Your task to perform on an android device: Open calendar and show me the first week of next month Image 0: 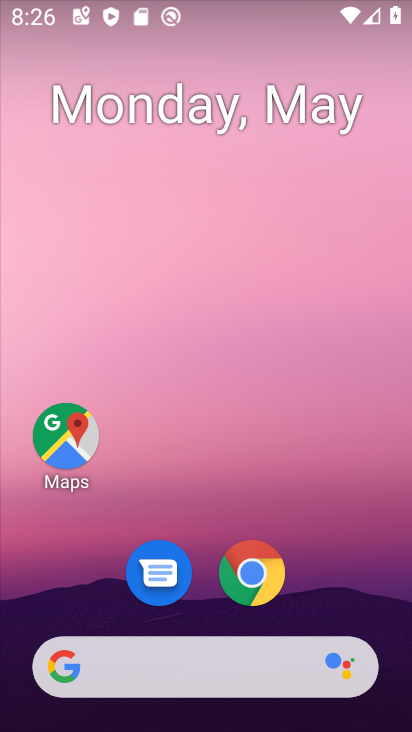
Step 0: drag from (353, 608) to (364, 160)
Your task to perform on an android device: Open calendar and show me the first week of next month Image 1: 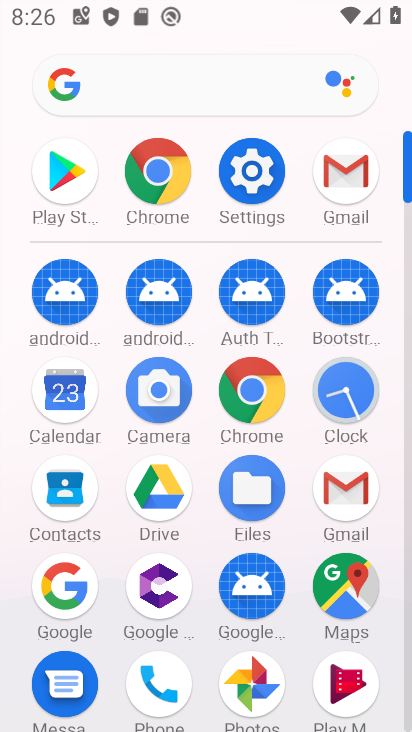
Step 1: task complete